Your task to perform on an android device: set the timer Image 0: 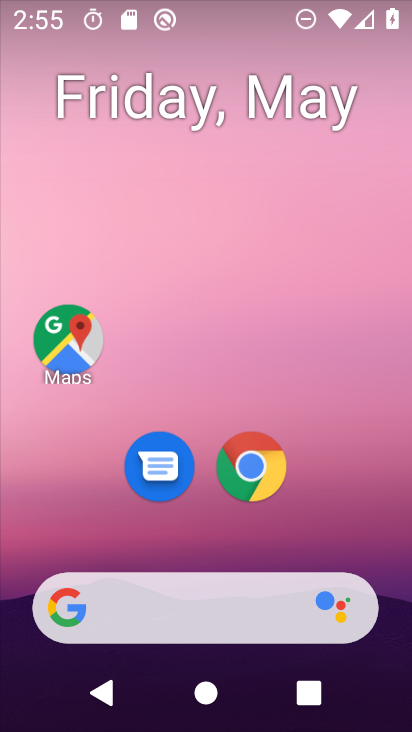
Step 0: drag from (340, 503) to (350, 39)
Your task to perform on an android device: set the timer Image 1: 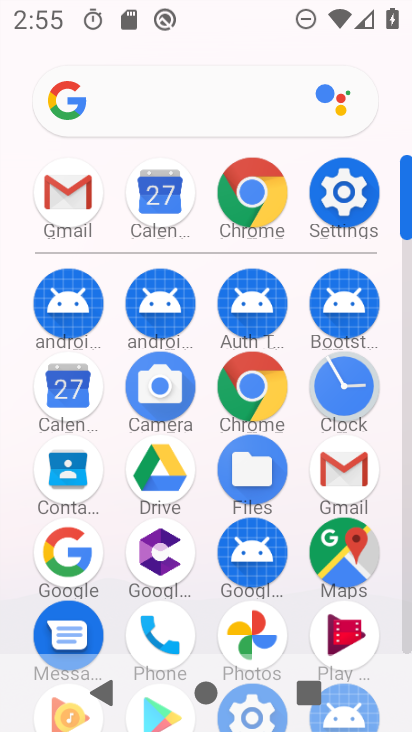
Step 1: drag from (399, 521) to (411, 168)
Your task to perform on an android device: set the timer Image 2: 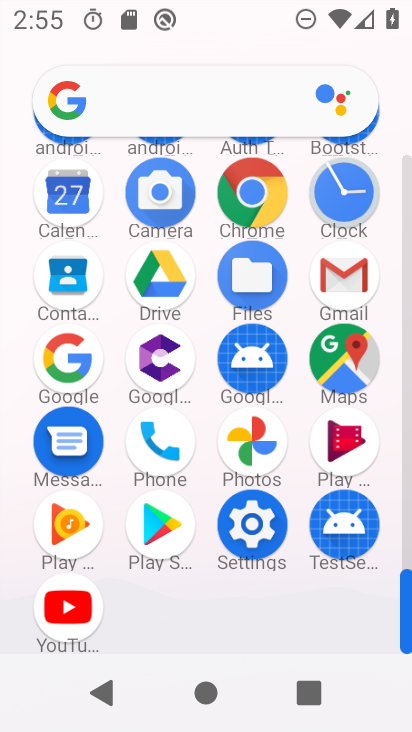
Step 2: click (357, 175)
Your task to perform on an android device: set the timer Image 3: 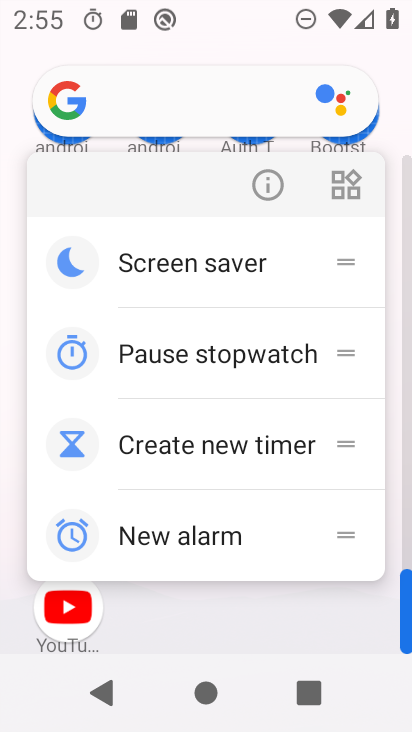
Step 3: press back button
Your task to perform on an android device: set the timer Image 4: 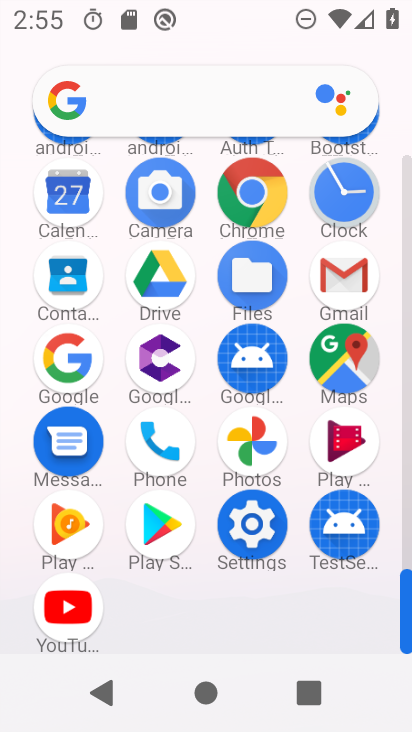
Step 4: click (356, 210)
Your task to perform on an android device: set the timer Image 5: 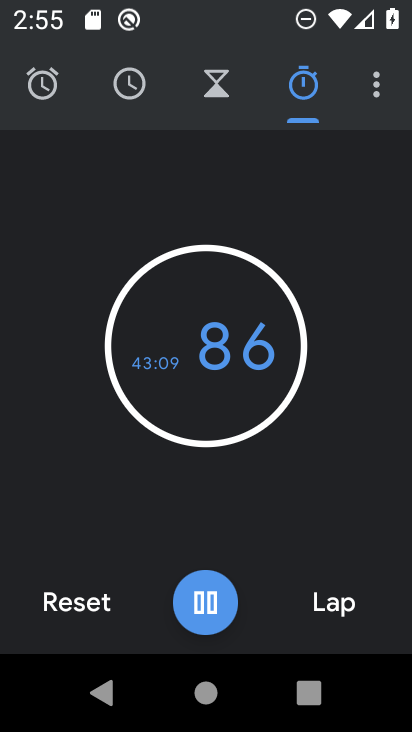
Step 5: click (221, 69)
Your task to perform on an android device: set the timer Image 6: 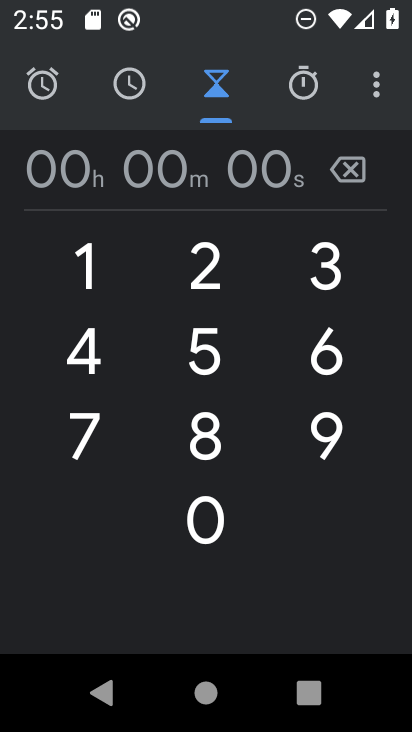
Step 6: click (205, 239)
Your task to perform on an android device: set the timer Image 7: 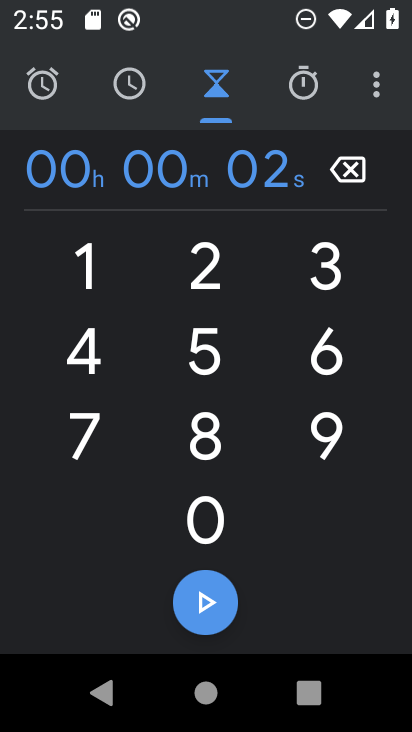
Step 7: click (231, 334)
Your task to perform on an android device: set the timer Image 8: 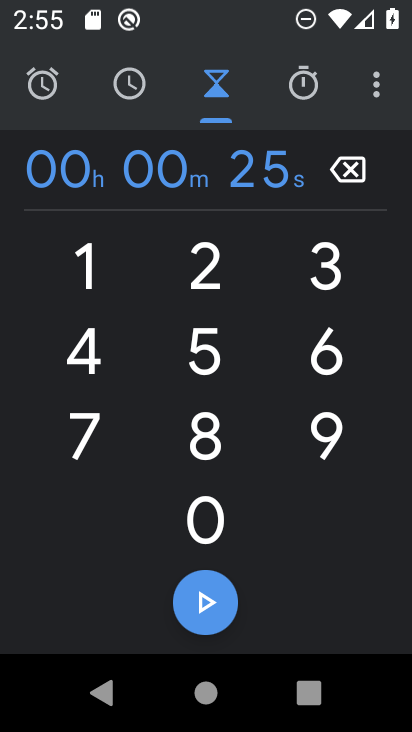
Step 8: click (214, 368)
Your task to perform on an android device: set the timer Image 9: 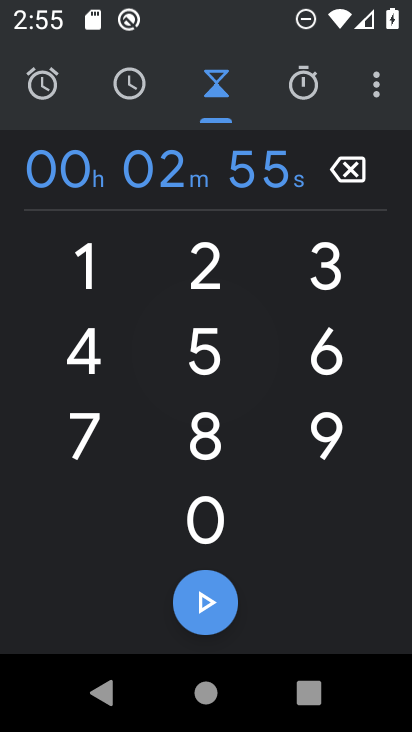
Step 9: click (187, 317)
Your task to perform on an android device: set the timer Image 10: 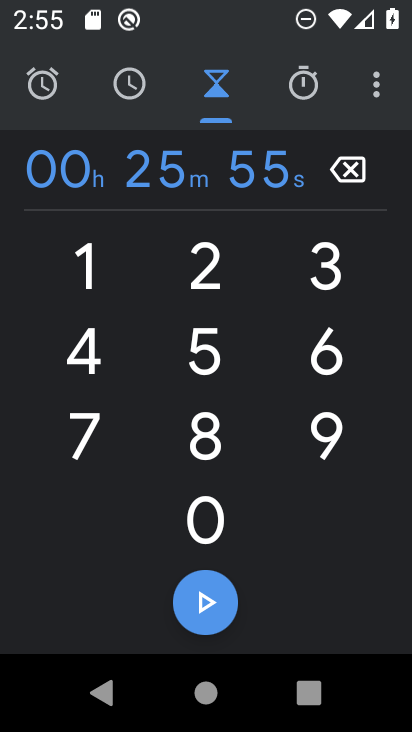
Step 10: click (219, 375)
Your task to perform on an android device: set the timer Image 11: 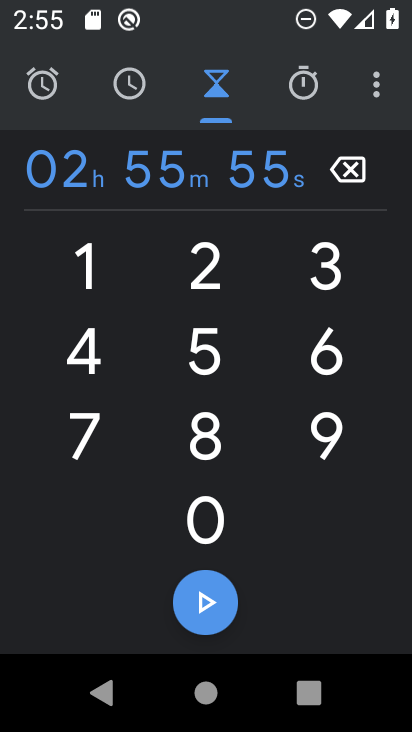
Step 11: click (213, 440)
Your task to perform on an android device: set the timer Image 12: 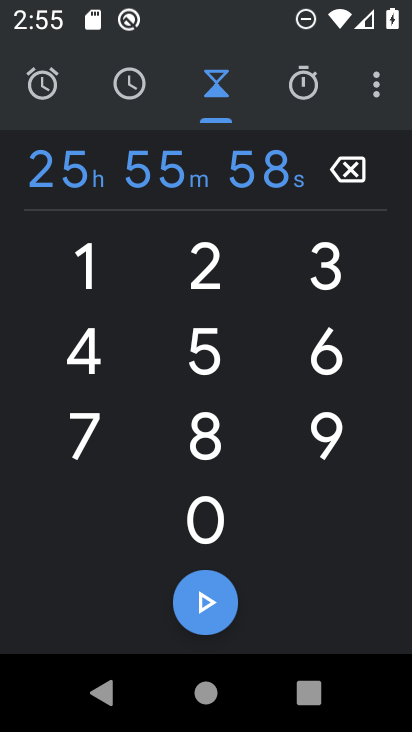
Step 12: click (192, 619)
Your task to perform on an android device: set the timer Image 13: 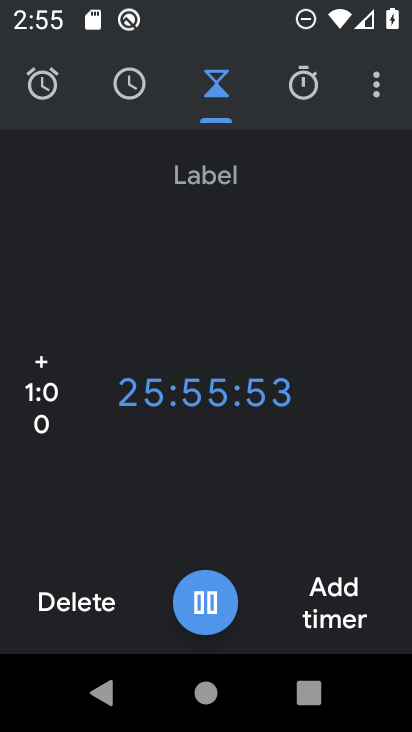
Step 13: task complete